Your task to perform on an android device: check data usage Image 0: 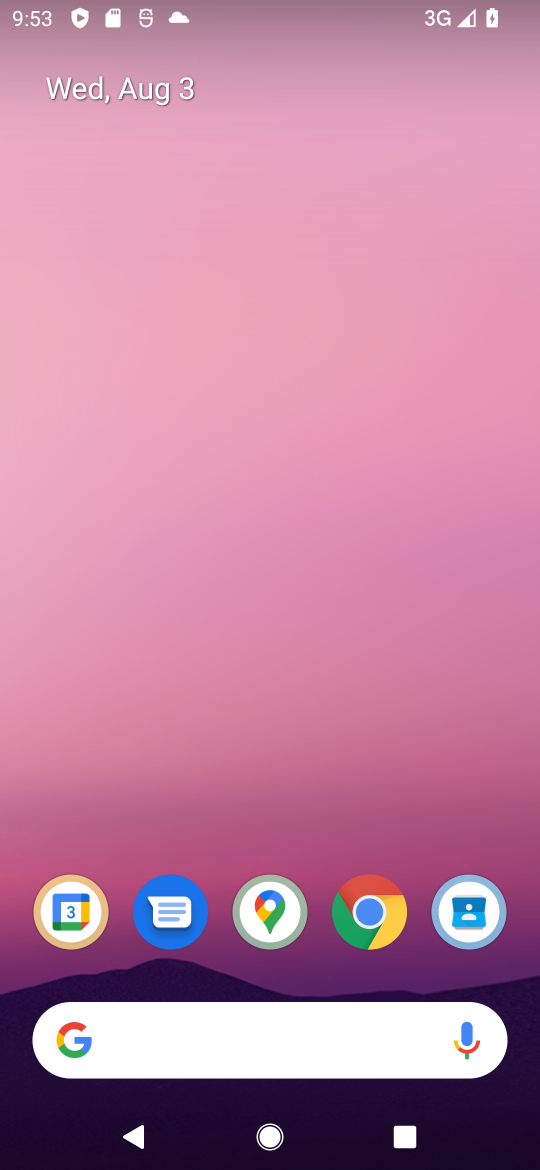
Step 0: drag from (466, 797) to (400, 95)
Your task to perform on an android device: check data usage Image 1: 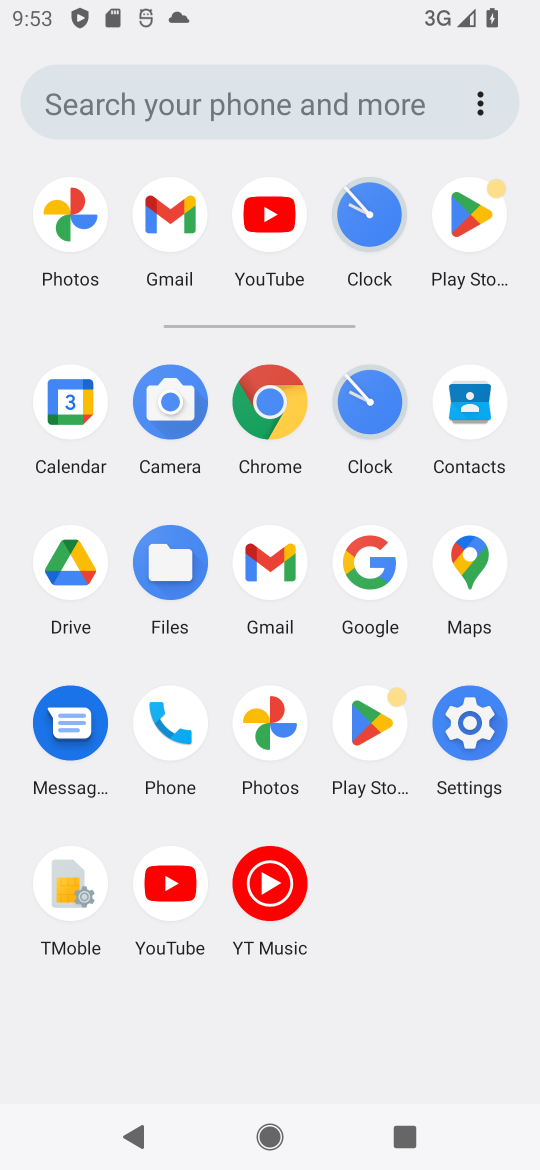
Step 1: click (476, 741)
Your task to perform on an android device: check data usage Image 2: 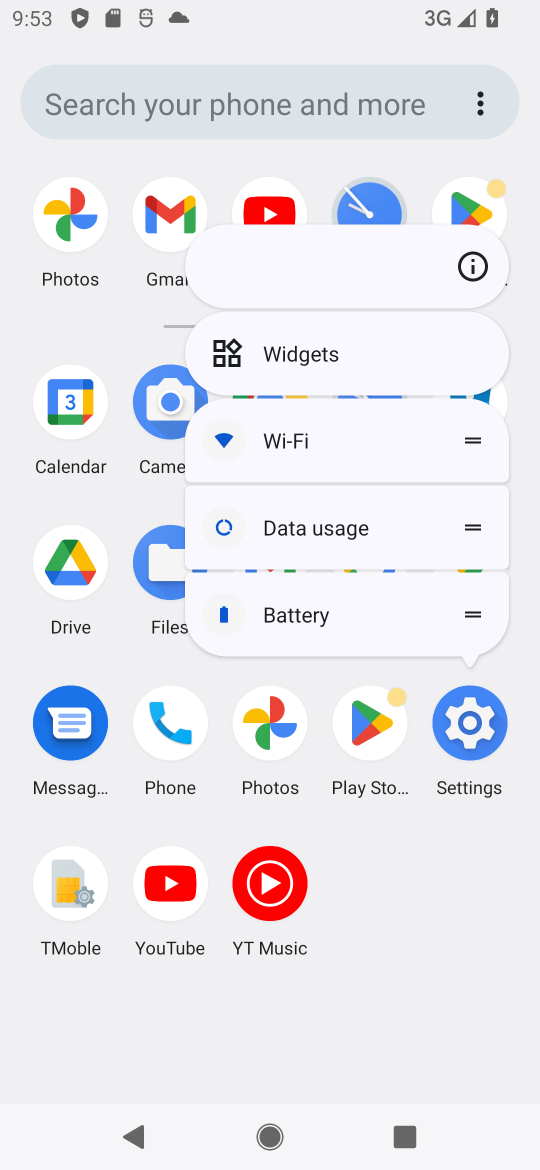
Step 2: click (476, 741)
Your task to perform on an android device: check data usage Image 3: 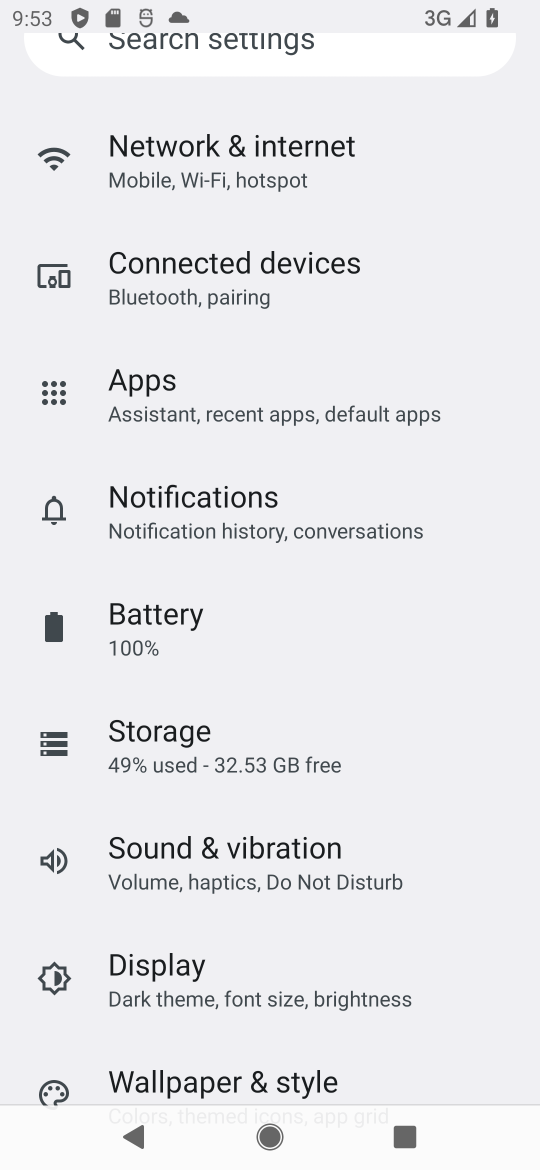
Step 3: drag from (283, 318) to (192, 1009)
Your task to perform on an android device: check data usage Image 4: 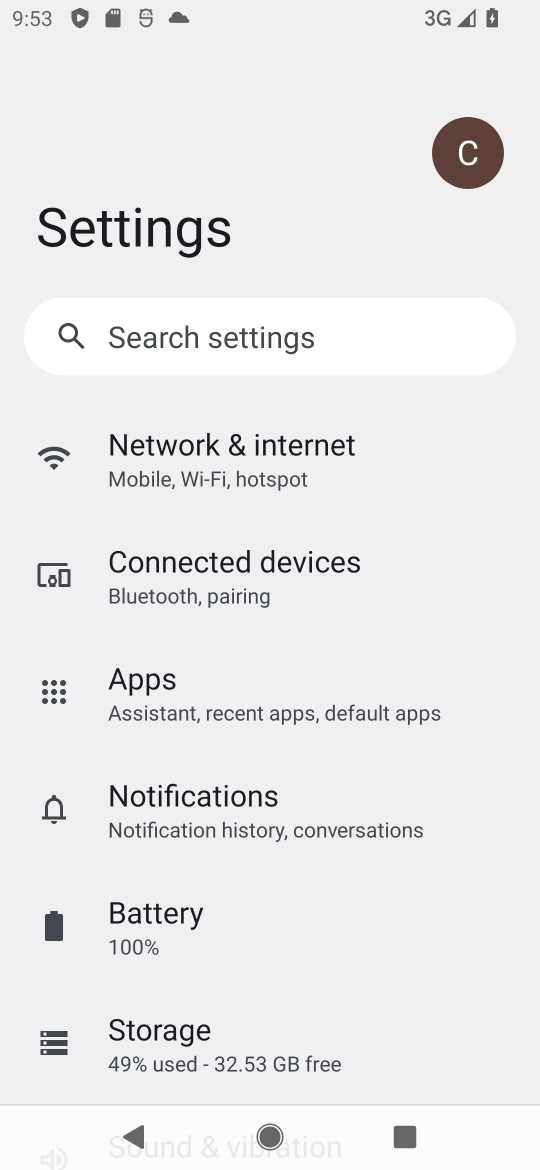
Step 4: click (195, 464)
Your task to perform on an android device: check data usage Image 5: 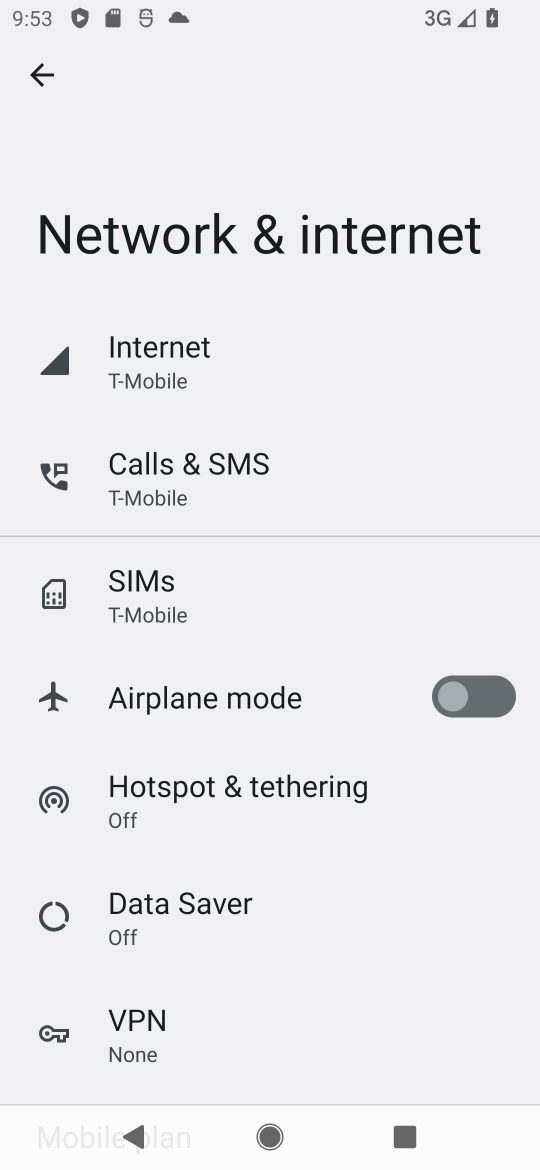
Step 5: click (140, 383)
Your task to perform on an android device: check data usage Image 6: 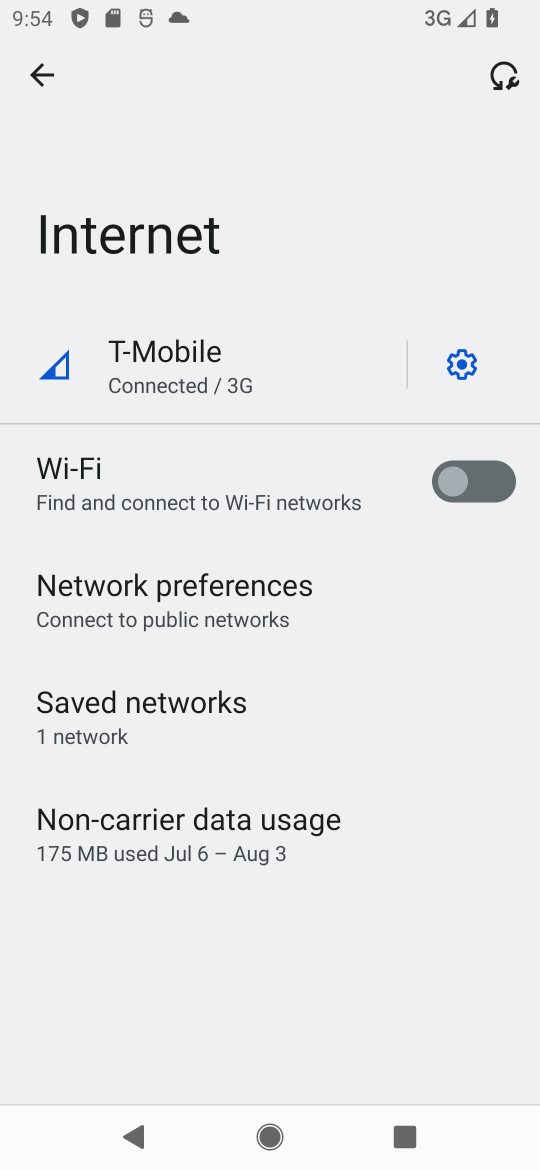
Step 6: click (128, 391)
Your task to perform on an android device: check data usage Image 7: 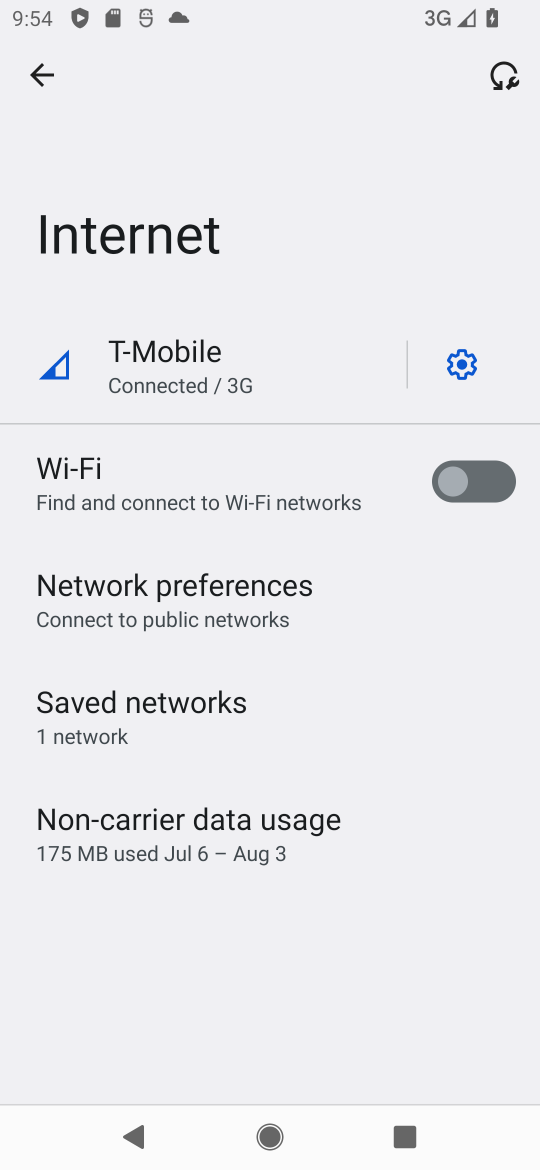
Step 7: task complete